Your task to perform on an android device: Go to privacy settings Image 0: 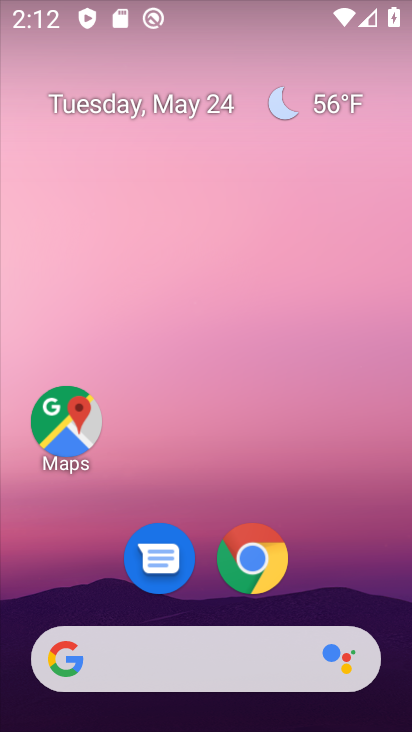
Step 0: click (230, 569)
Your task to perform on an android device: Go to privacy settings Image 1: 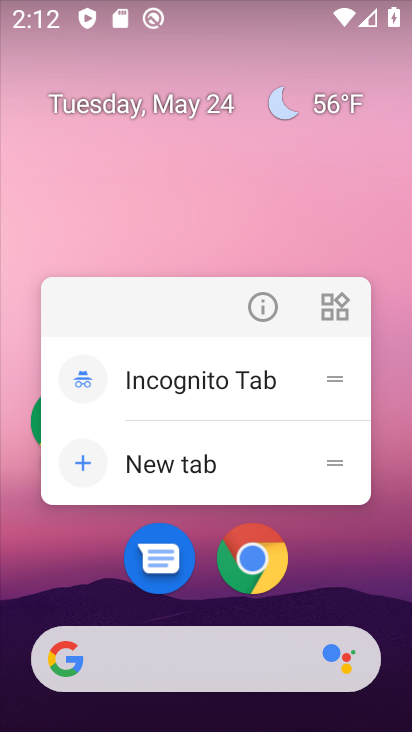
Step 1: click (260, 555)
Your task to perform on an android device: Go to privacy settings Image 2: 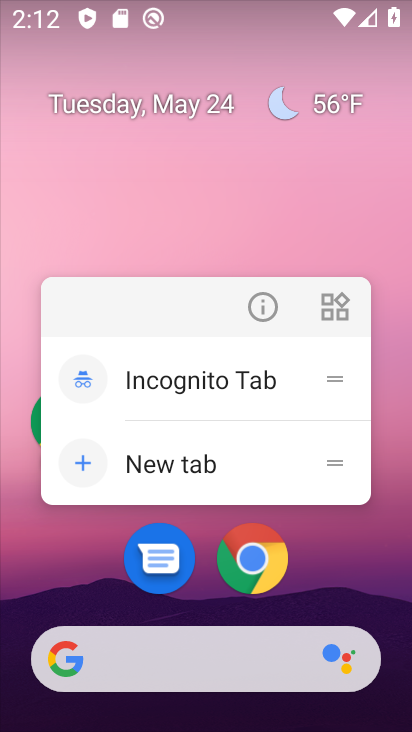
Step 2: click (259, 565)
Your task to perform on an android device: Go to privacy settings Image 3: 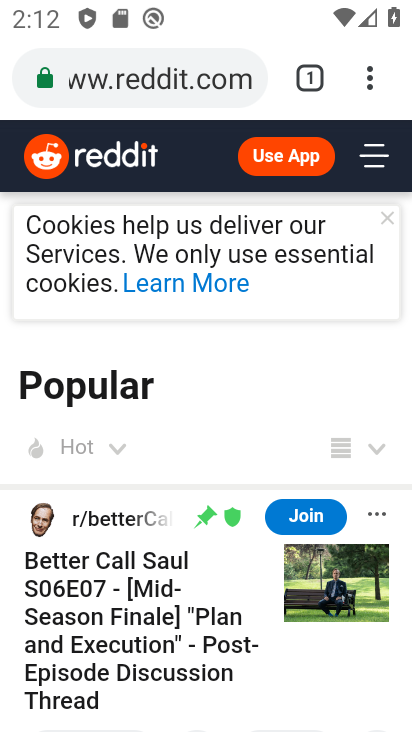
Step 3: drag from (367, 93) to (261, 609)
Your task to perform on an android device: Go to privacy settings Image 4: 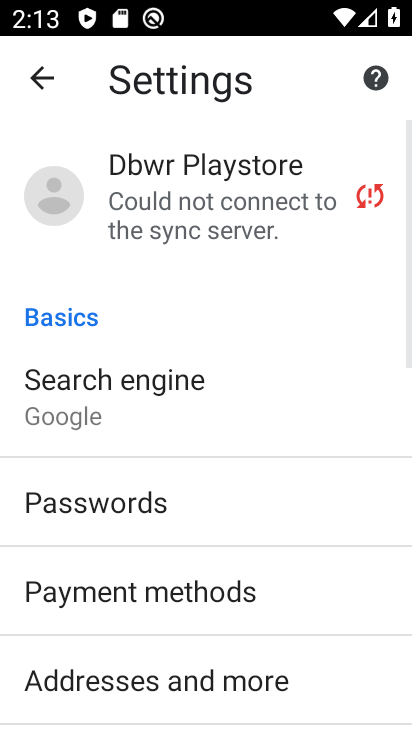
Step 4: drag from (71, 693) to (247, 254)
Your task to perform on an android device: Go to privacy settings Image 5: 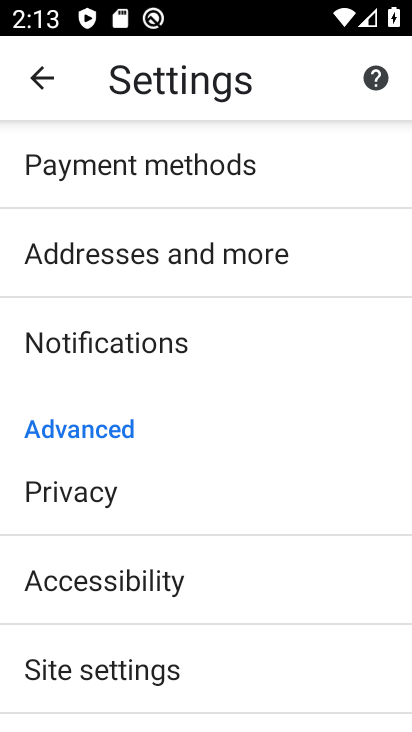
Step 5: click (128, 493)
Your task to perform on an android device: Go to privacy settings Image 6: 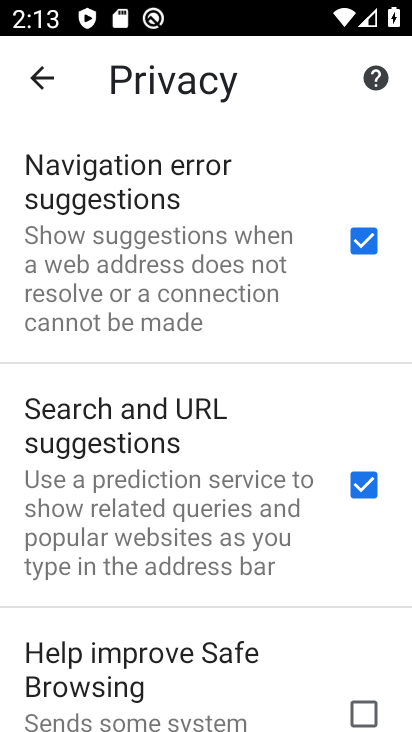
Step 6: task complete